Your task to perform on an android device: Search for custom t-shirts on Etsy. Image 0: 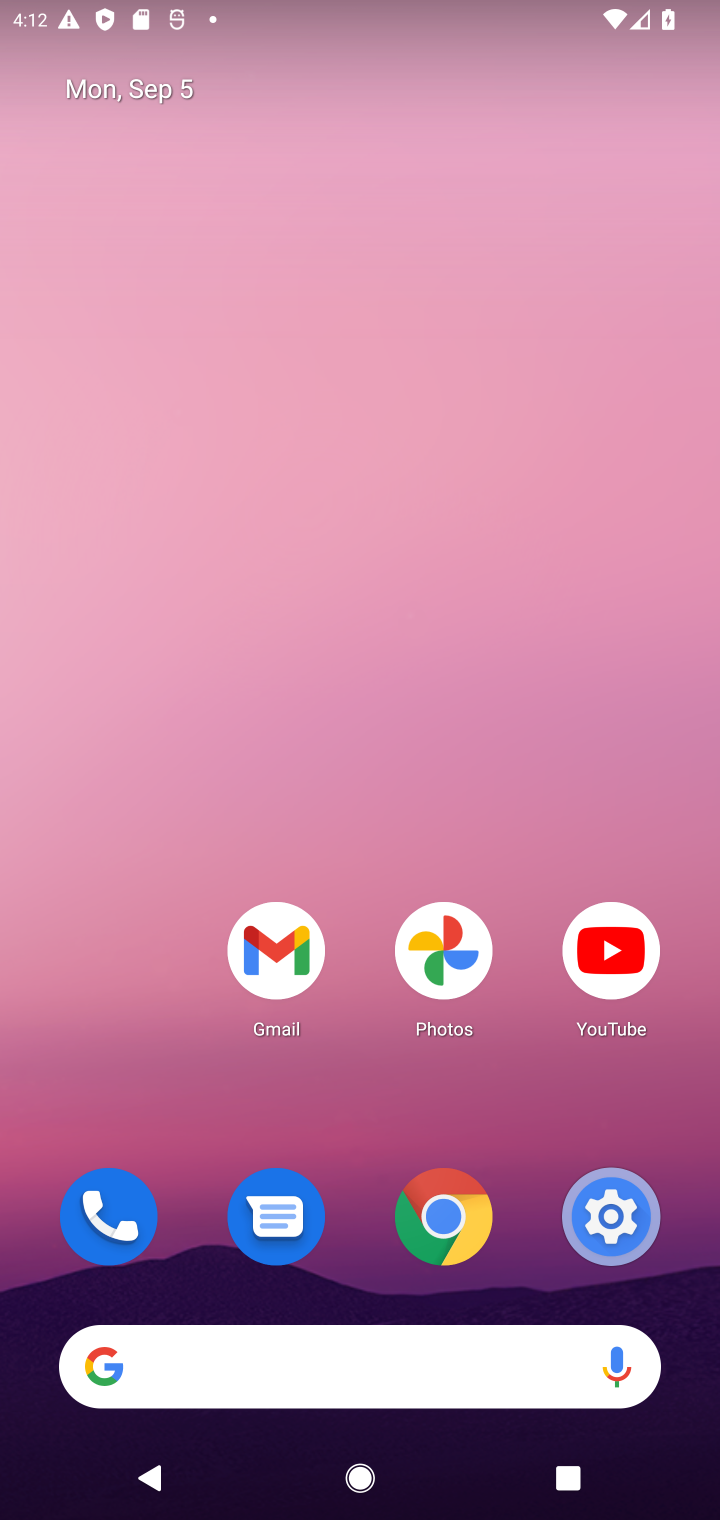
Step 0: click (82, 1372)
Your task to perform on an android device: Search for custom t-shirts on Etsy. Image 1: 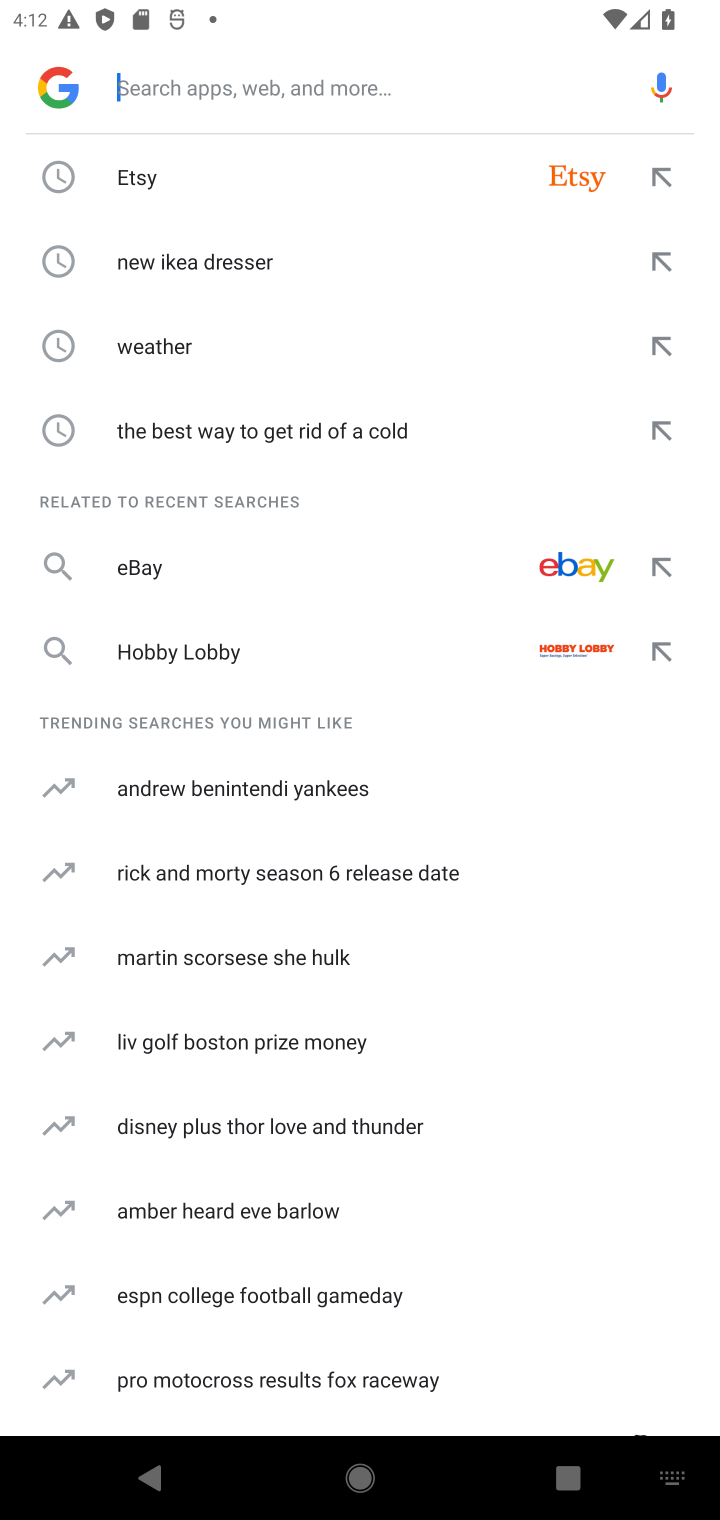
Step 1: click (593, 171)
Your task to perform on an android device: Search for custom t-shirts on Etsy. Image 2: 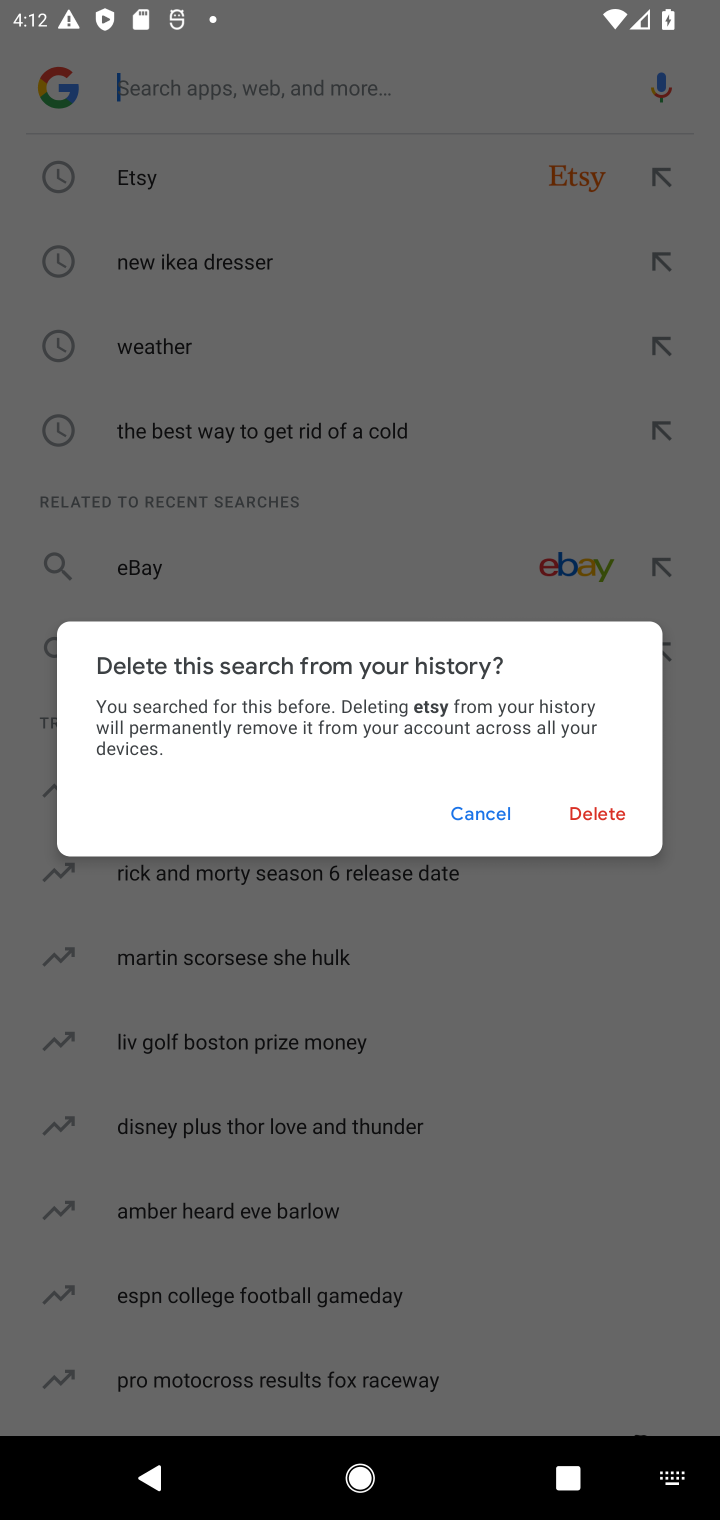
Step 2: click (607, 810)
Your task to perform on an android device: Search for custom t-shirts on Etsy. Image 3: 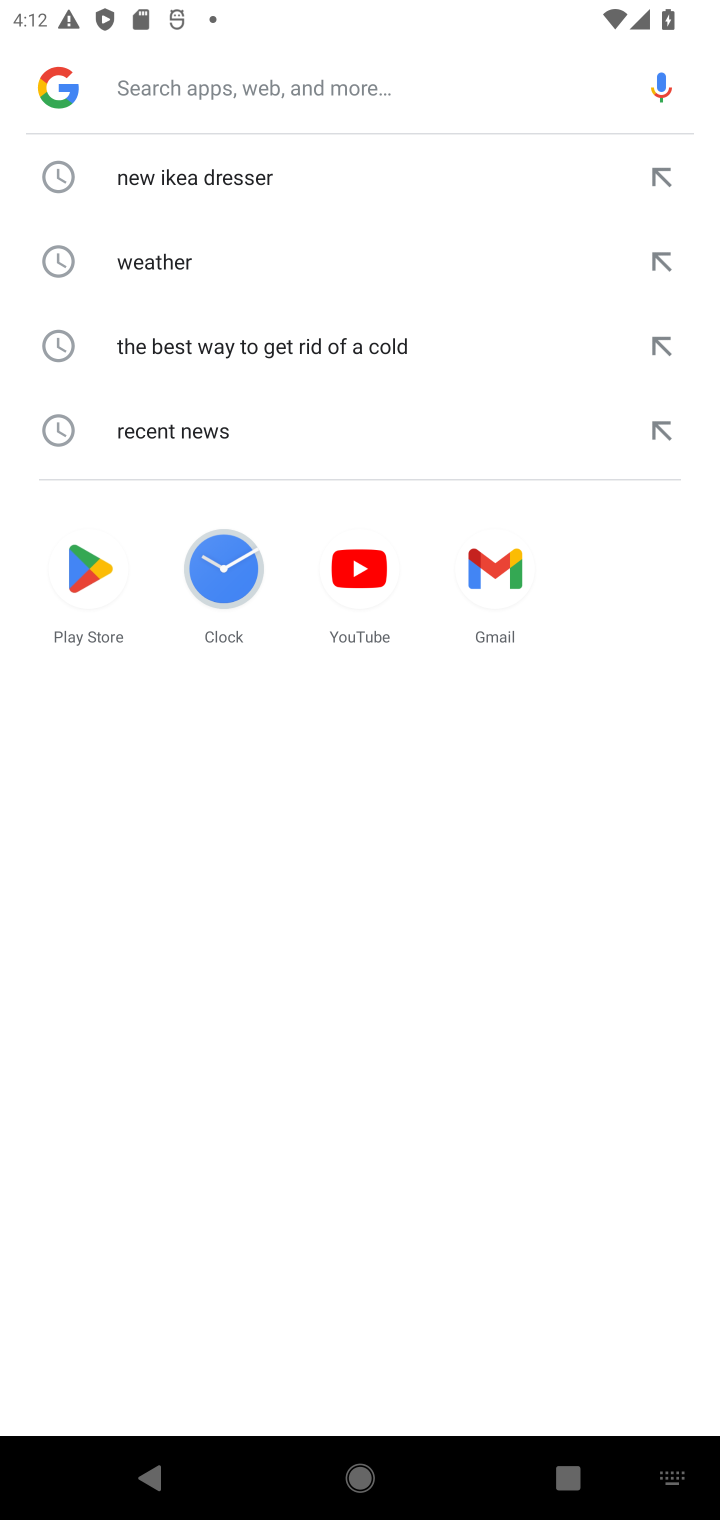
Step 3: type "Etsy"
Your task to perform on an android device: Search for custom t-shirts on Etsy. Image 4: 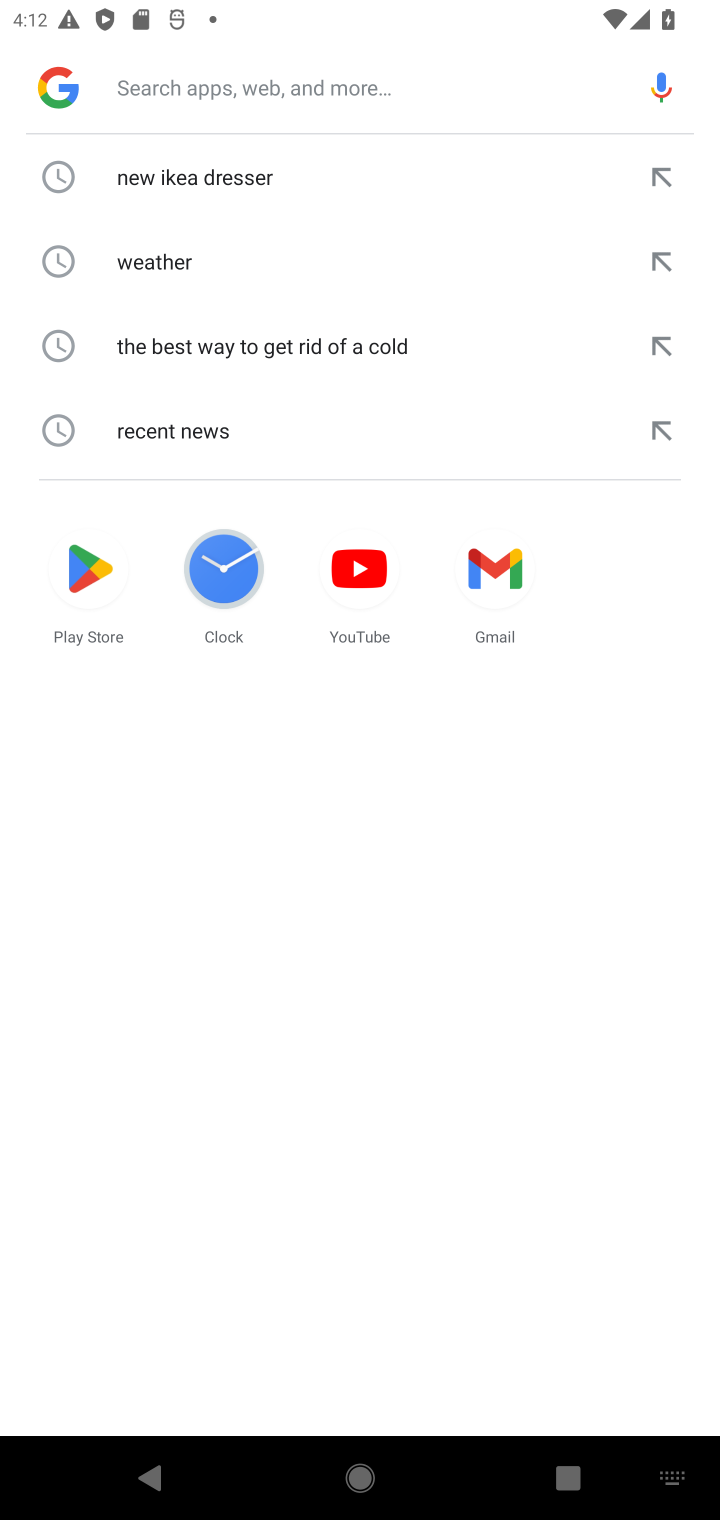
Step 4: click (215, 79)
Your task to perform on an android device: Search for custom t-shirts on Etsy. Image 5: 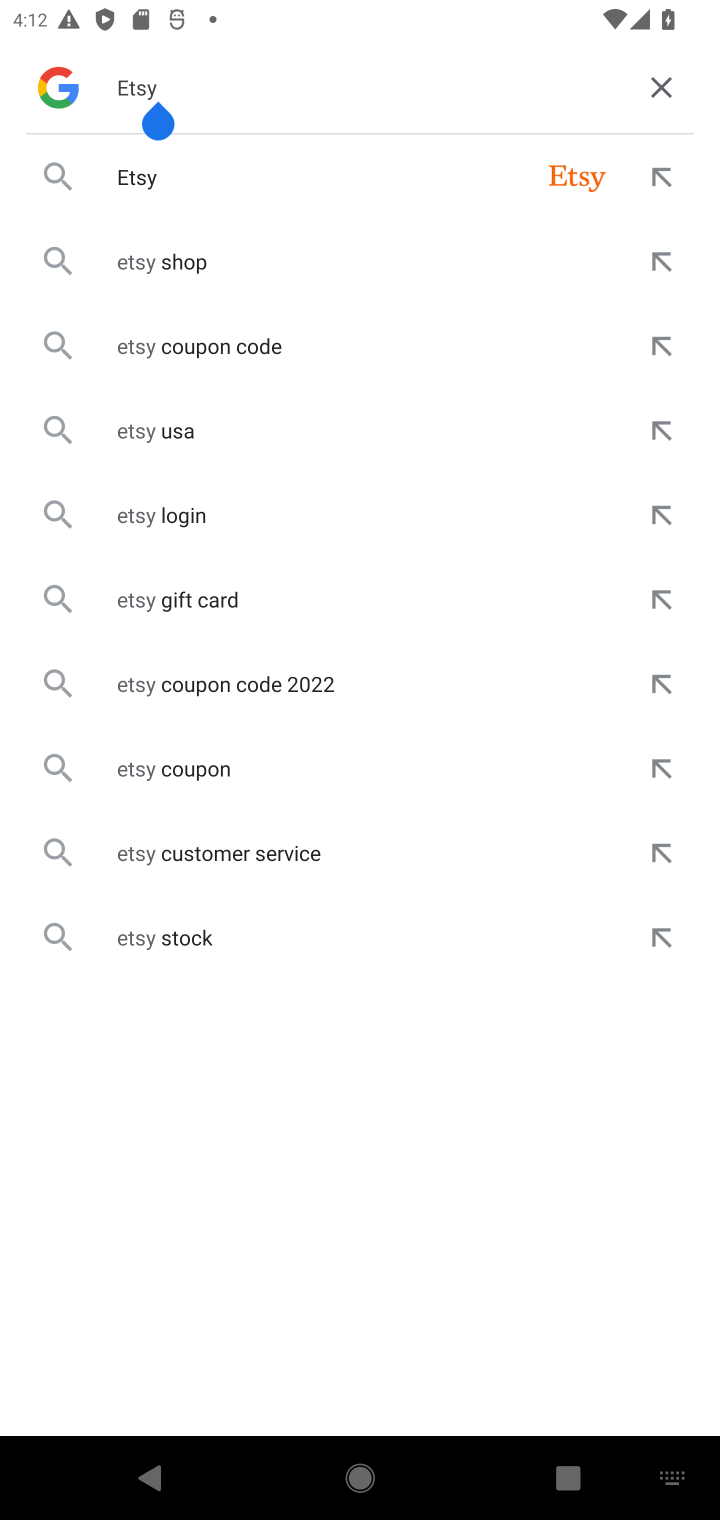
Step 5: press enter
Your task to perform on an android device: Search for custom t-shirts on Etsy. Image 6: 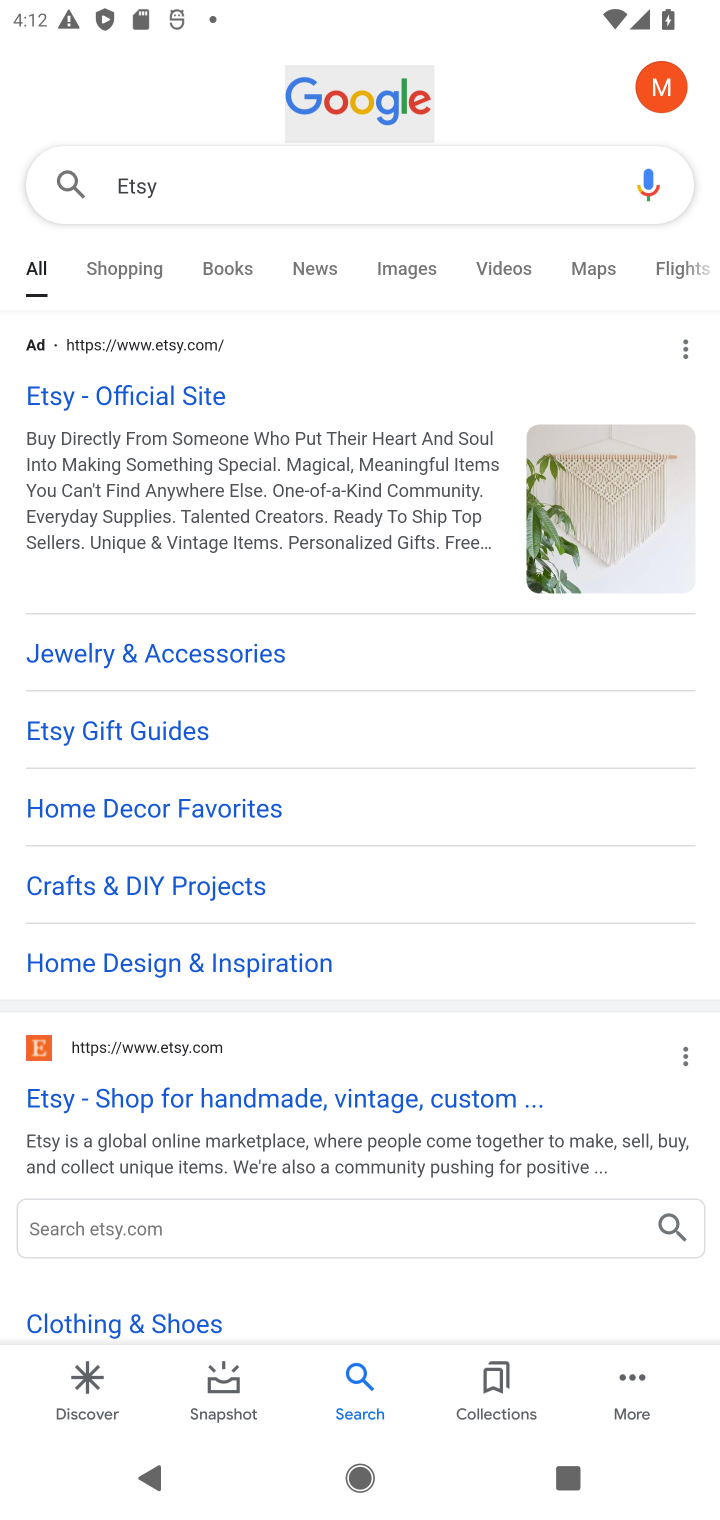
Step 6: click (260, 1104)
Your task to perform on an android device: Search for custom t-shirts on Etsy. Image 7: 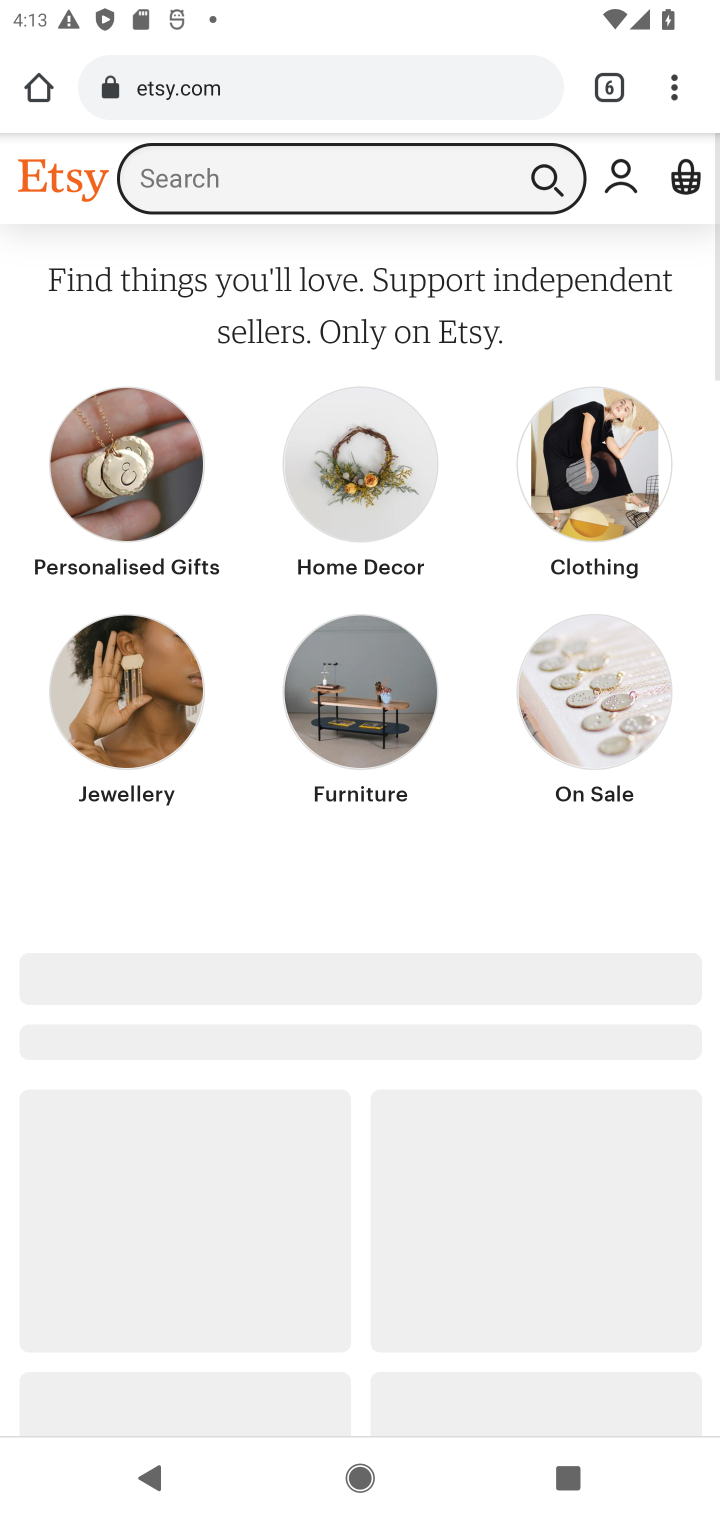
Step 7: click (248, 157)
Your task to perform on an android device: Search for custom t-shirts on Etsy. Image 8: 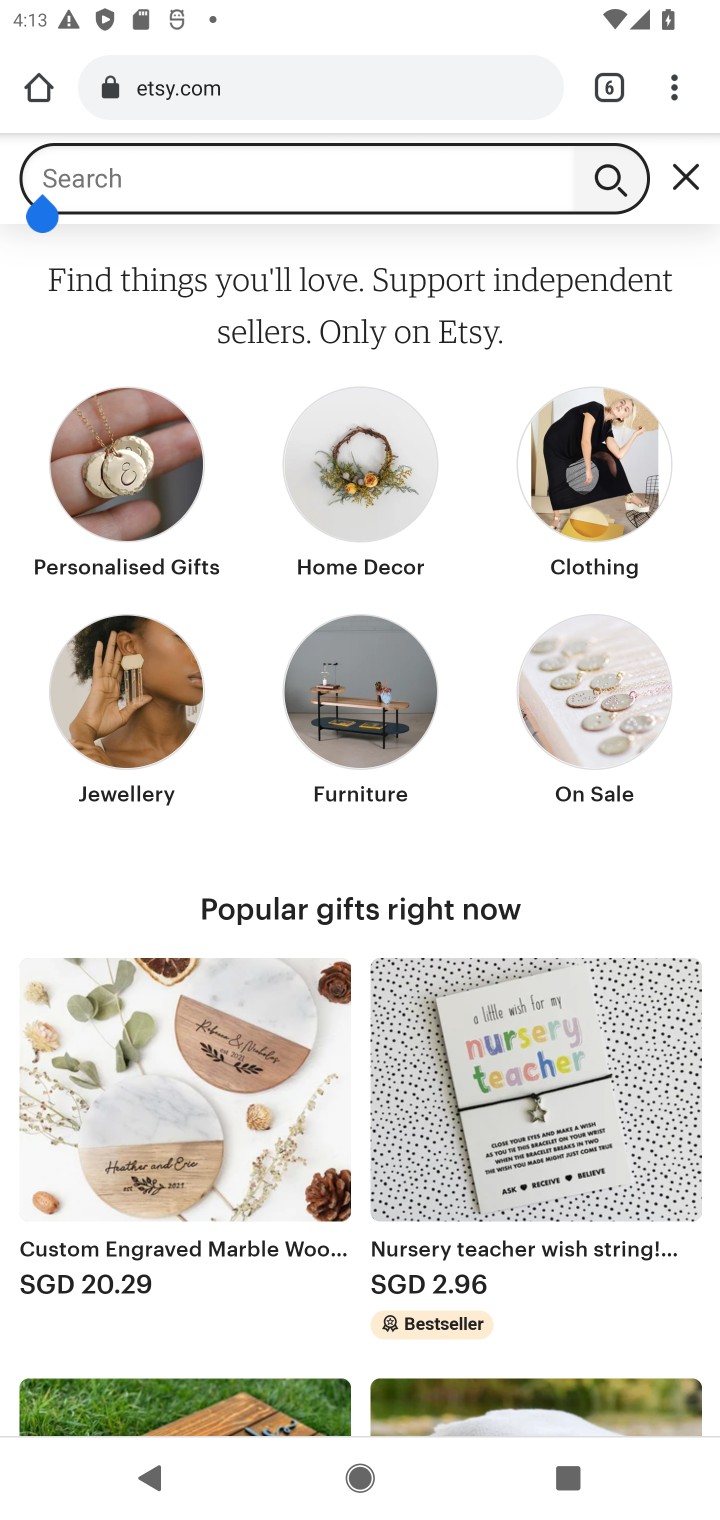
Step 8: type "custom t-shirts"
Your task to perform on an android device: Search for custom t-shirts on Etsy. Image 9: 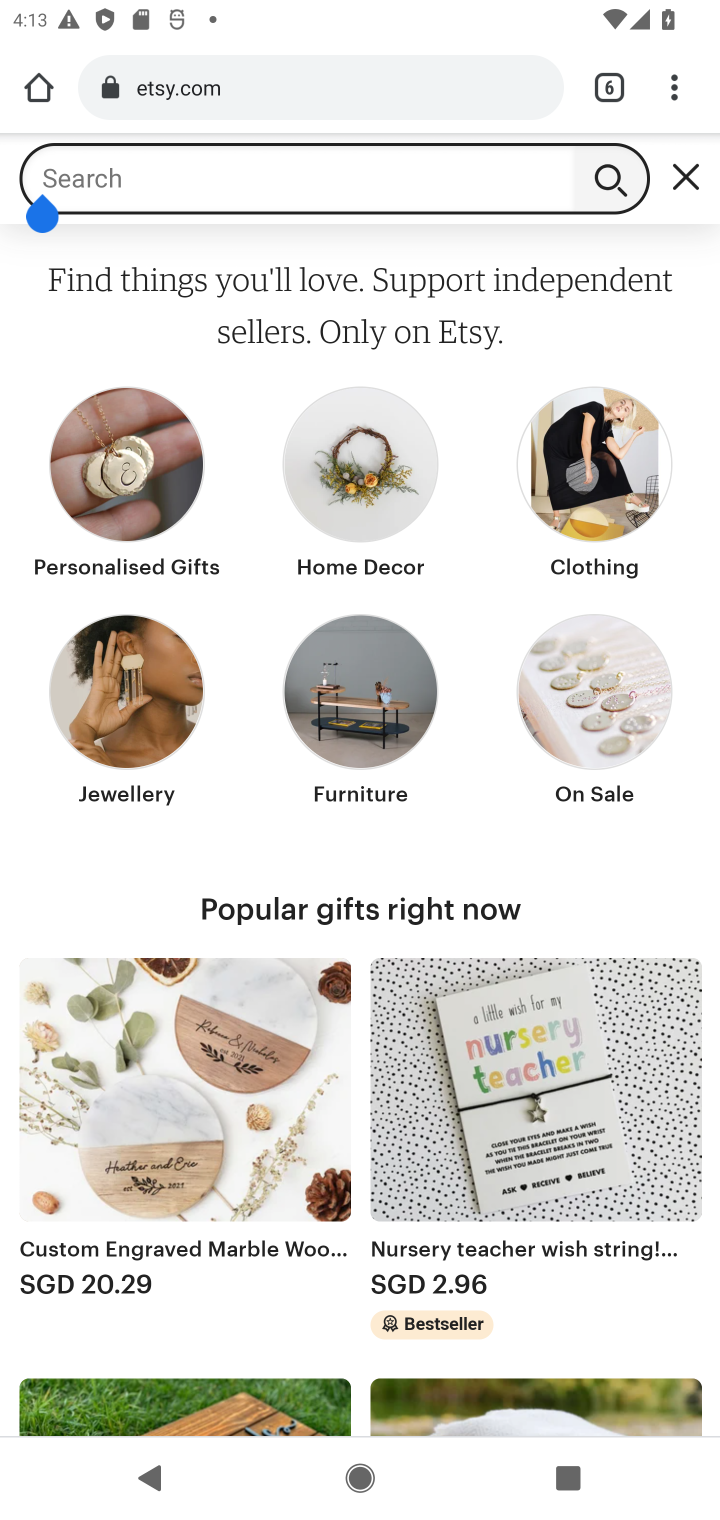
Step 9: click (252, 182)
Your task to perform on an android device: Search for custom t-shirts on Etsy. Image 10: 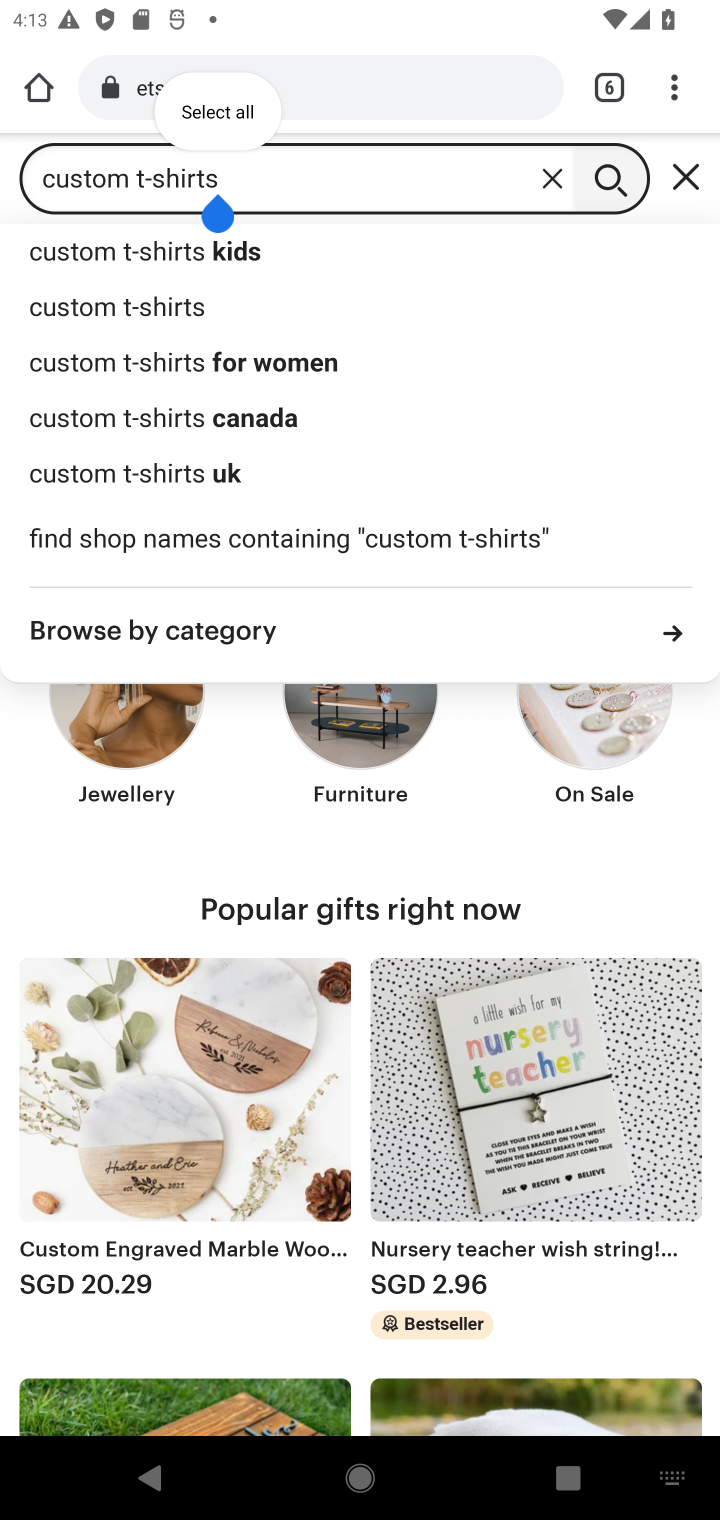
Step 10: press enter
Your task to perform on an android device: Search for custom t-shirts on Etsy. Image 11: 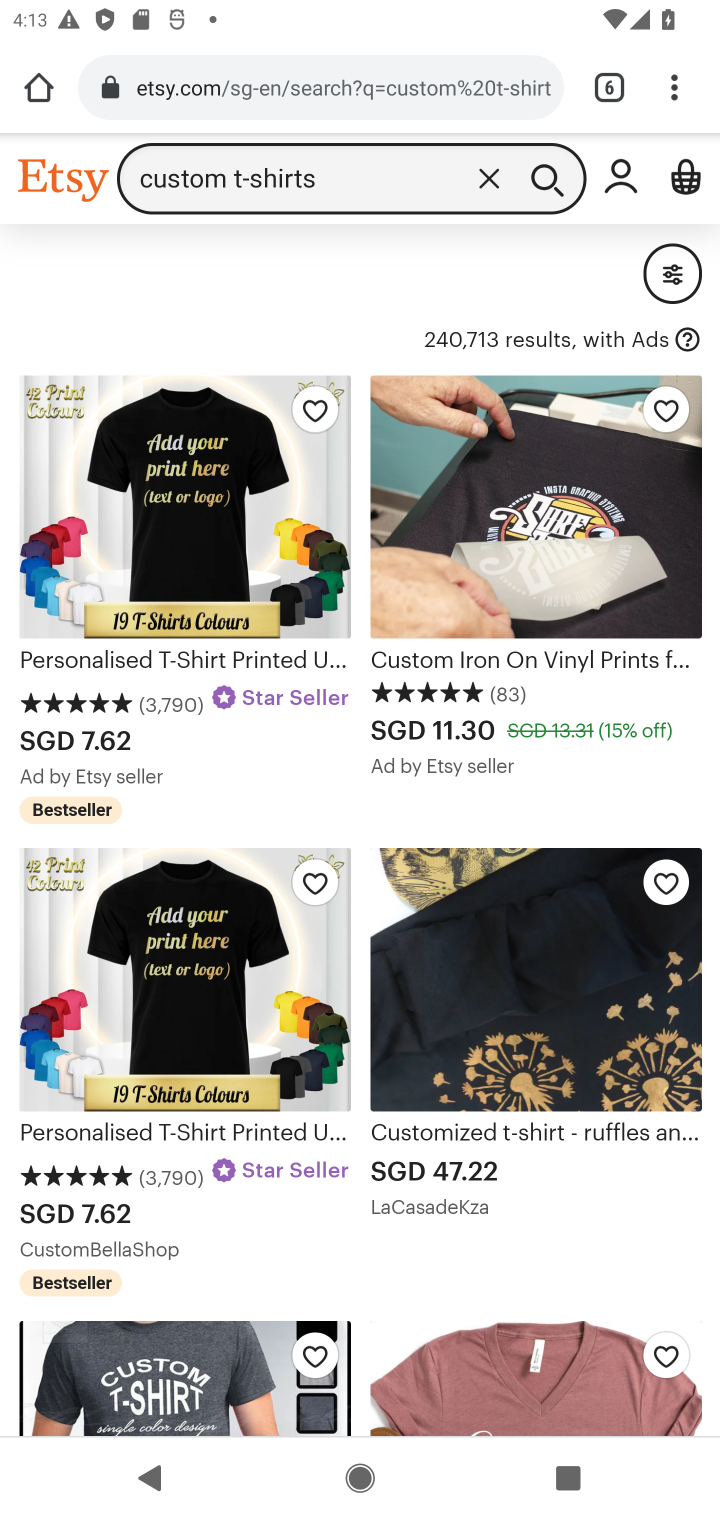
Step 11: task complete